Your task to perform on an android device: change keyboard looks Image 0: 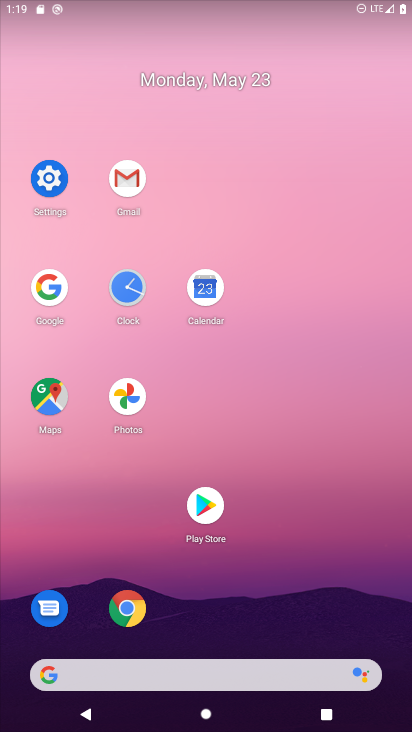
Step 0: click (54, 167)
Your task to perform on an android device: change keyboard looks Image 1: 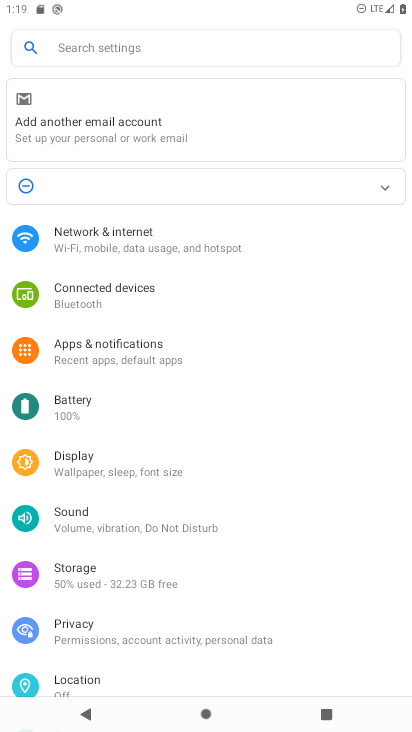
Step 1: drag from (194, 652) to (196, 273)
Your task to perform on an android device: change keyboard looks Image 2: 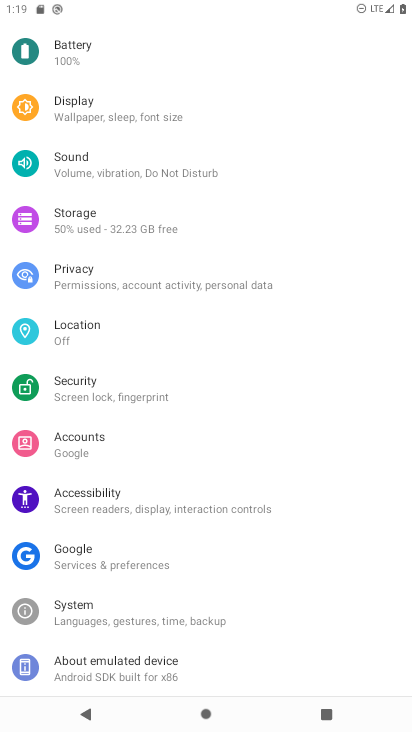
Step 2: click (128, 605)
Your task to perform on an android device: change keyboard looks Image 3: 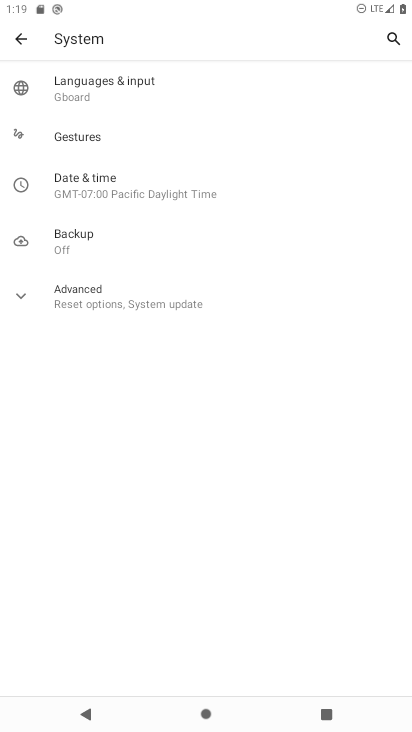
Step 3: click (109, 89)
Your task to perform on an android device: change keyboard looks Image 4: 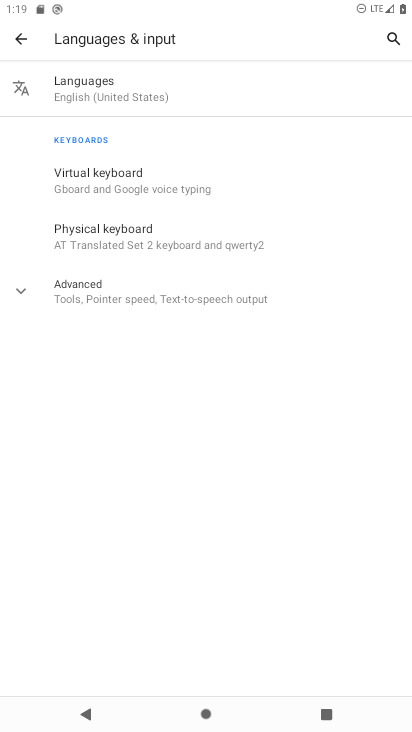
Step 4: click (141, 200)
Your task to perform on an android device: change keyboard looks Image 5: 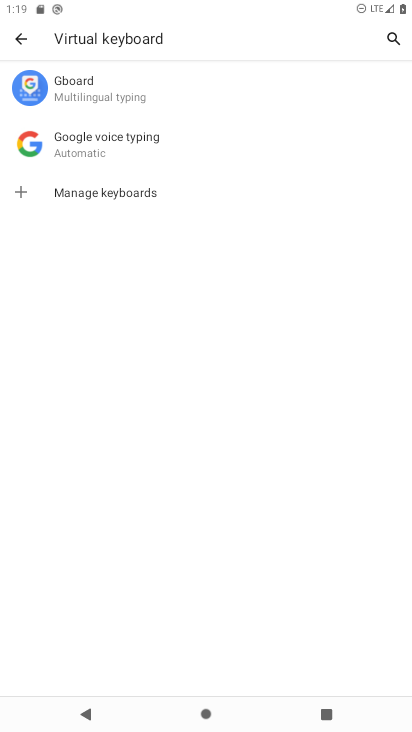
Step 5: click (114, 100)
Your task to perform on an android device: change keyboard looks Image 6: 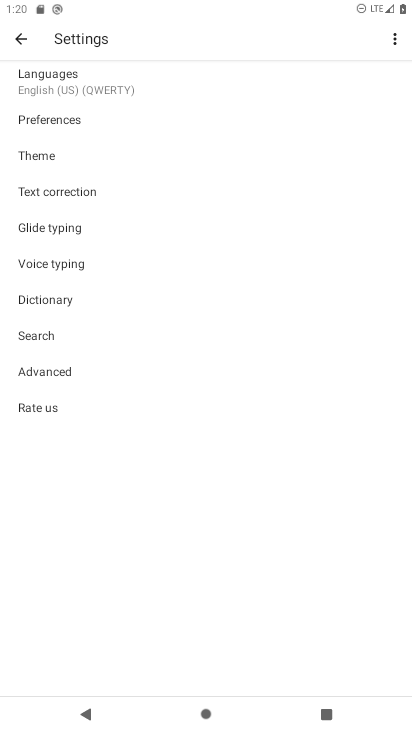
Step 6: click (55, 150)
Your task to perform on an android device: change keyboard looks Image 7: 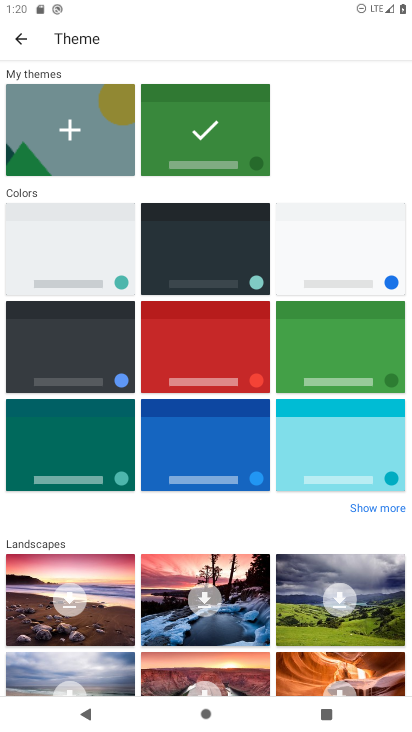
Step 7: click (254, 380)
Your task to perform on an android device: change keyboard looks Image 8: 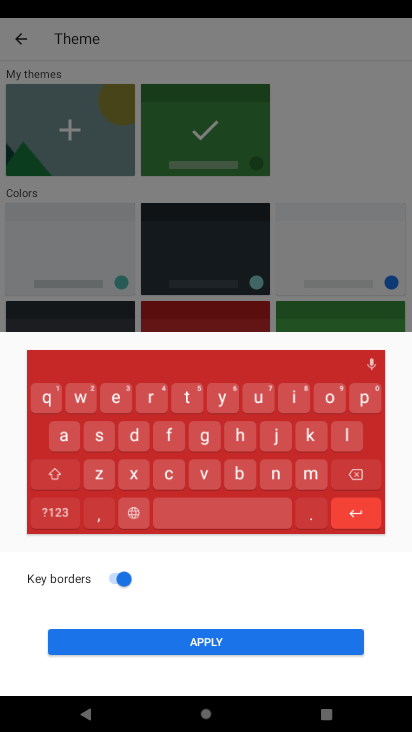
Step 8: click (201, 644)
Your task to perform on an android device: change keyboard looks Image 9: 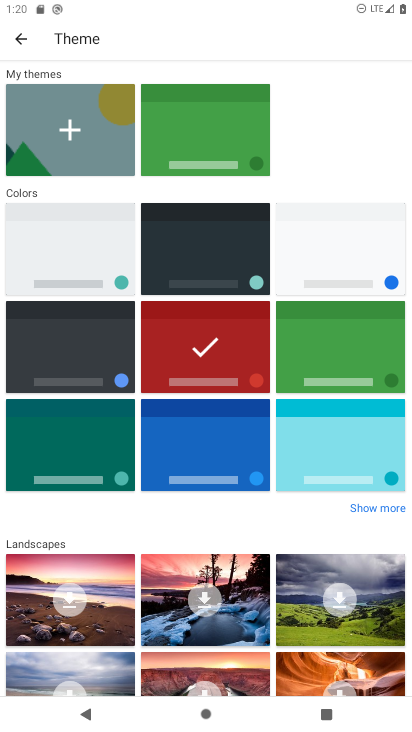
Step 9: task complete